Your task to perform on an android device: turn off improve location accuracy Image 0: 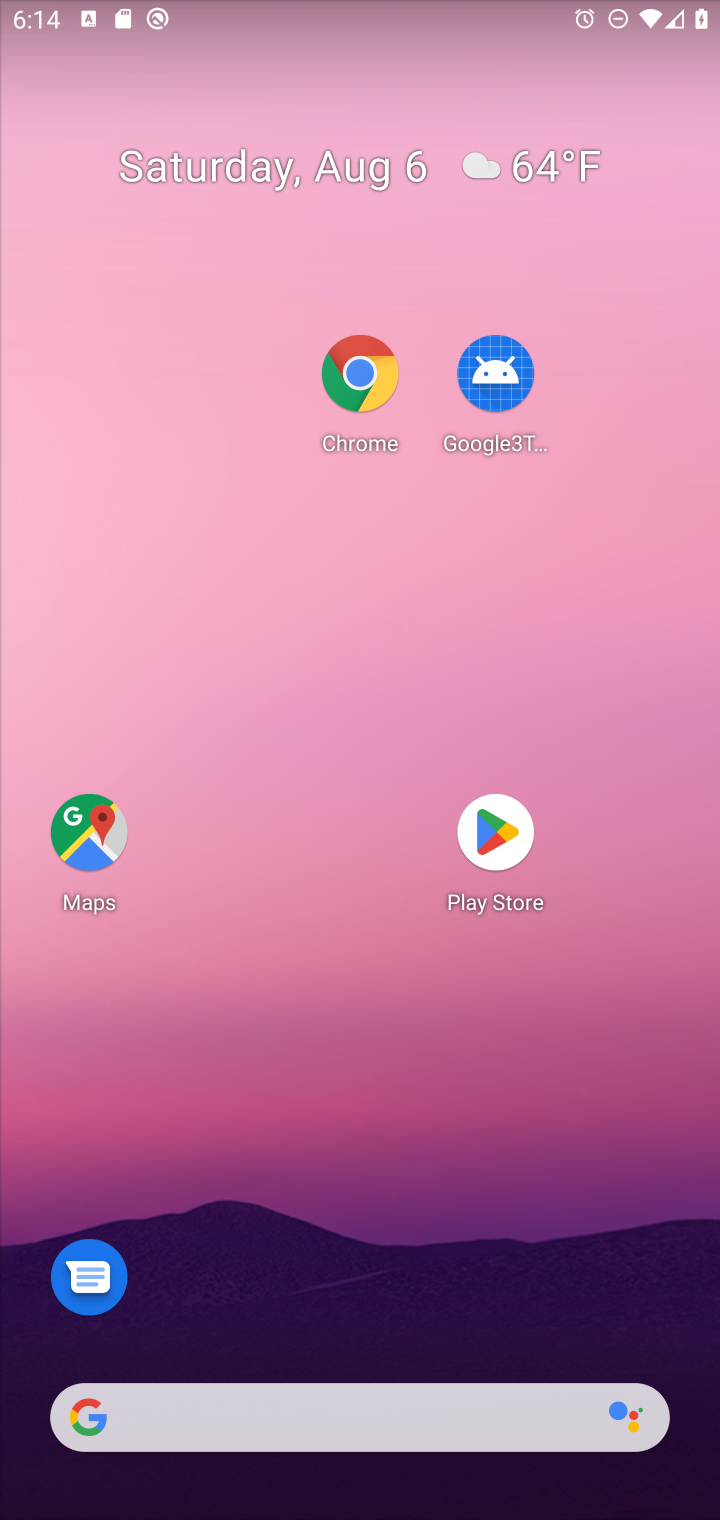
Step 0: drag from (262, 1404) to (410, 325)
Your task to perform on an android device: turn off improve location accuracy Image 1: 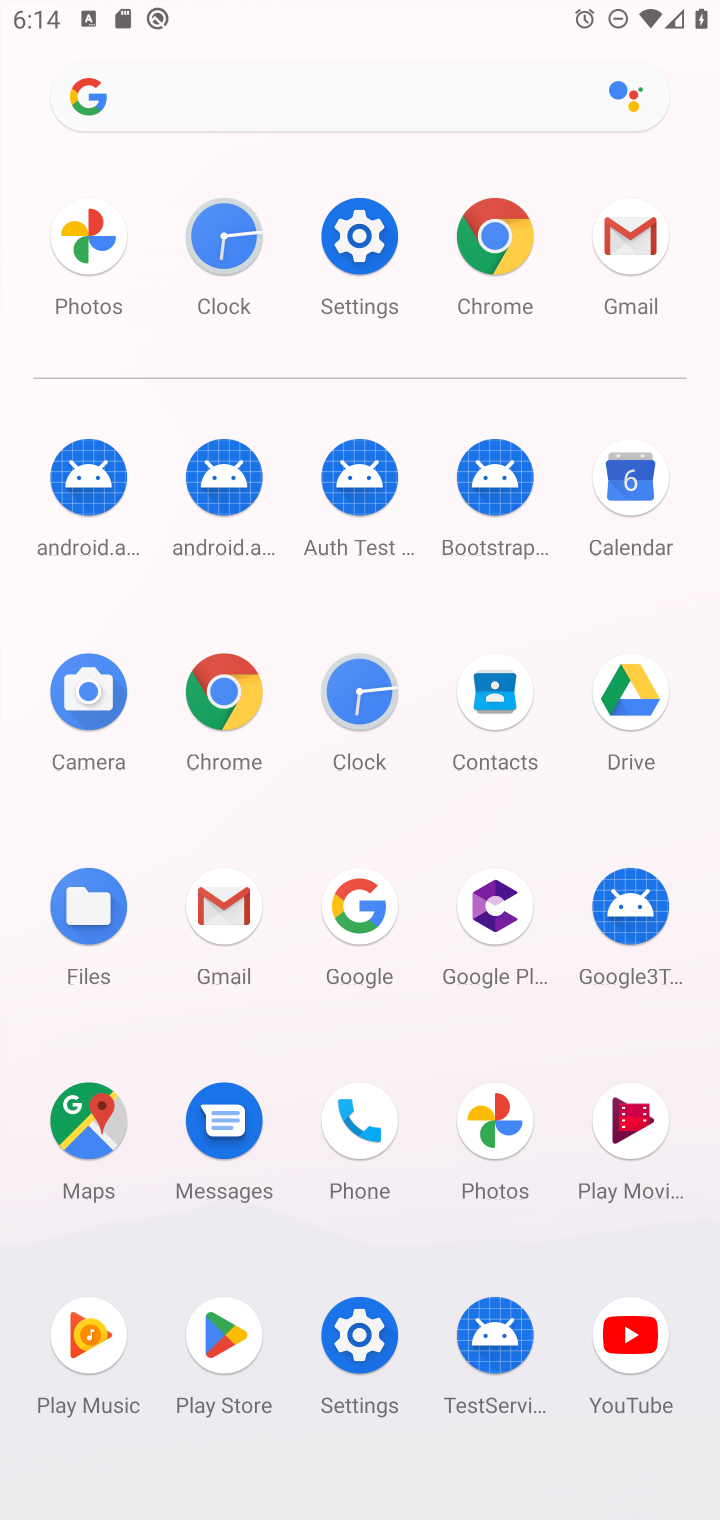
Step 1: click (370, 225)
Your task to perform on an android device: turn off improve location accuracy Image 2: 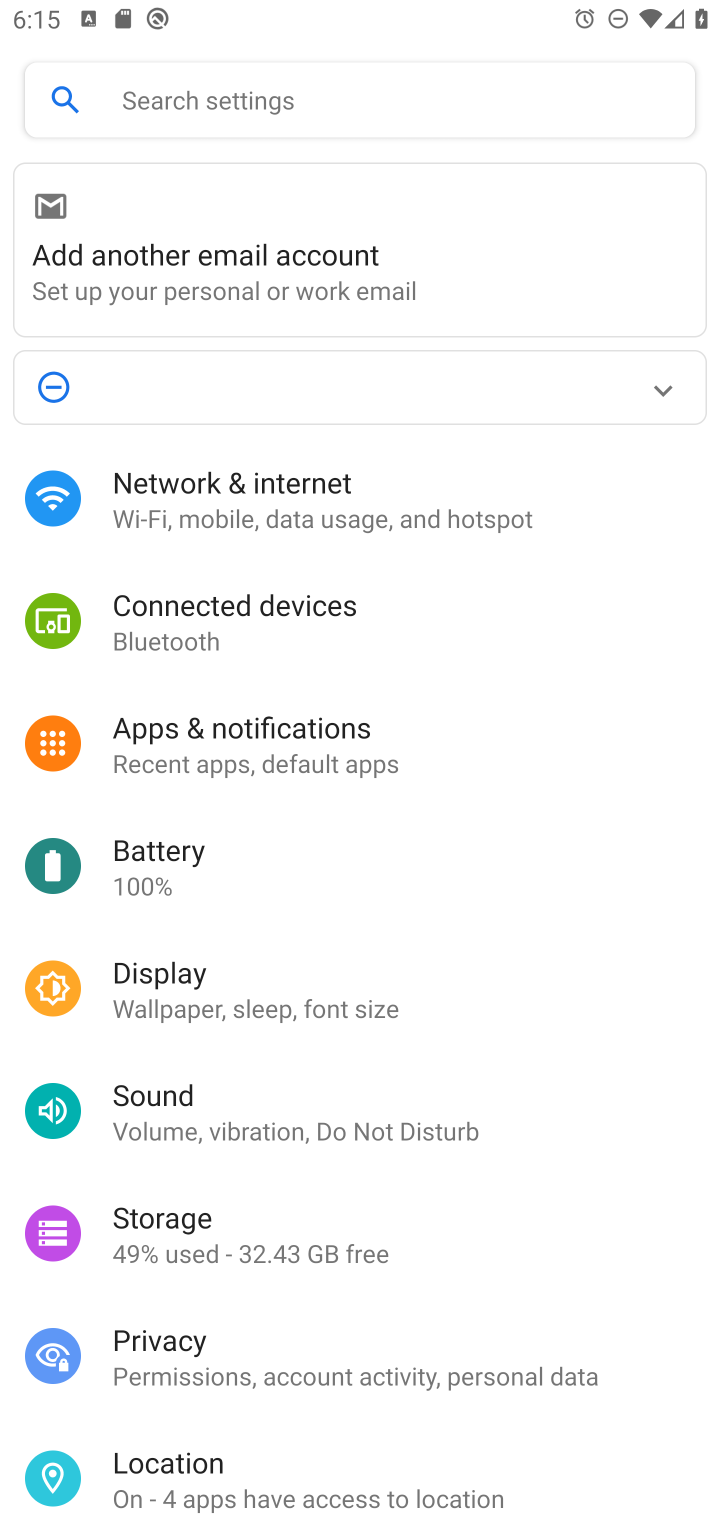
Step 2: click (169, 1465)
Your task to perform on an android device: turn off improve location accuracy Image 3: 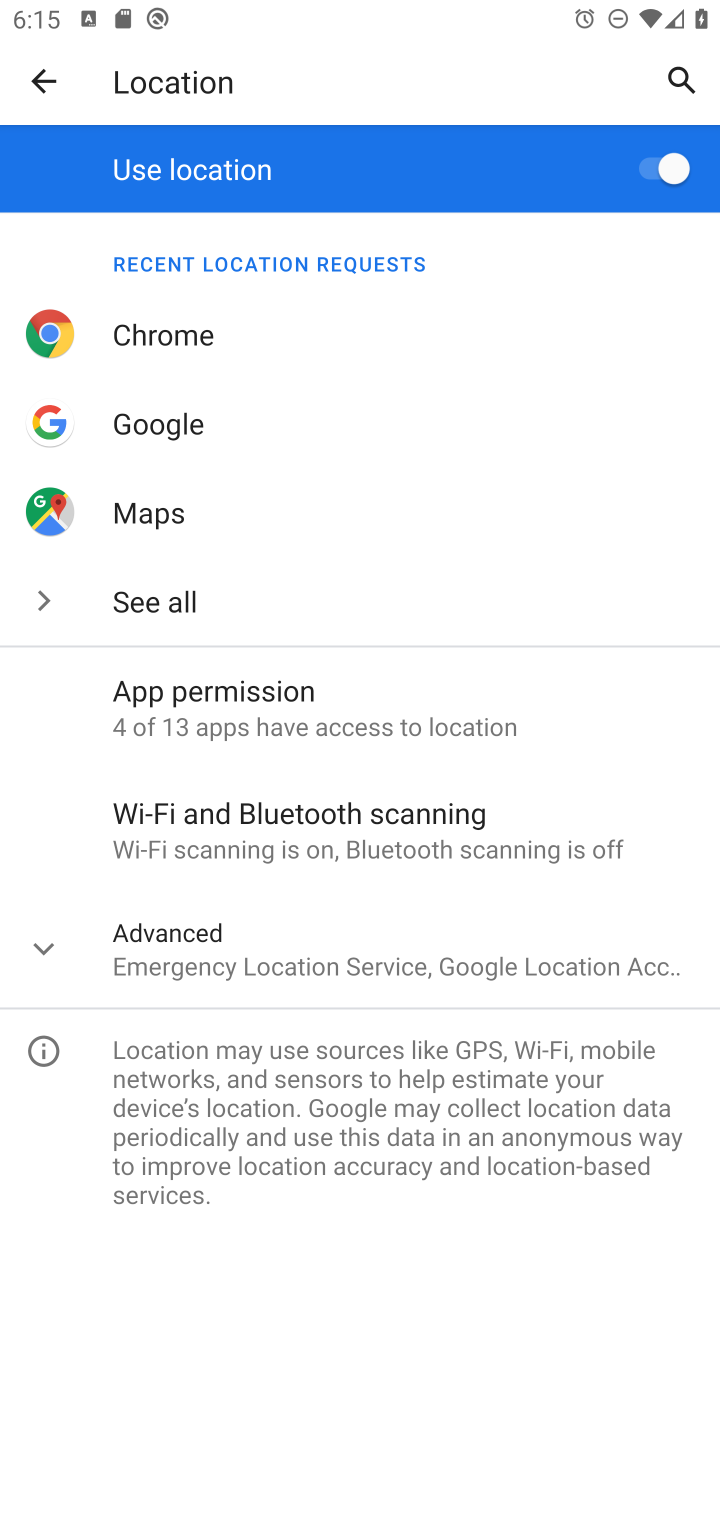
Step 3: click (247, 952)
Your task to perform on an android device: turn off improve location accuracy Image 4: 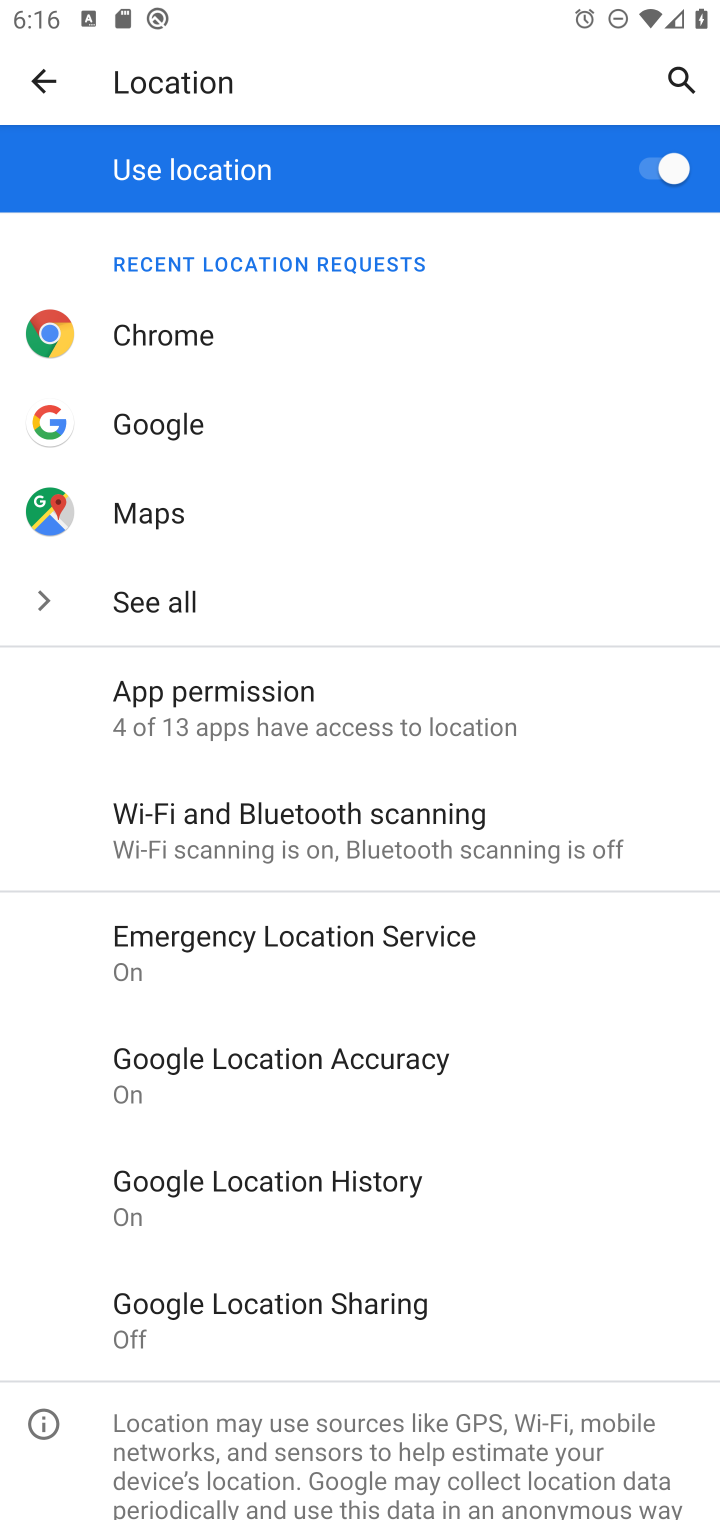
Step 4: click (338, 1070)
Your task to perform on an android device: turn off improve location accuracy Image 5: 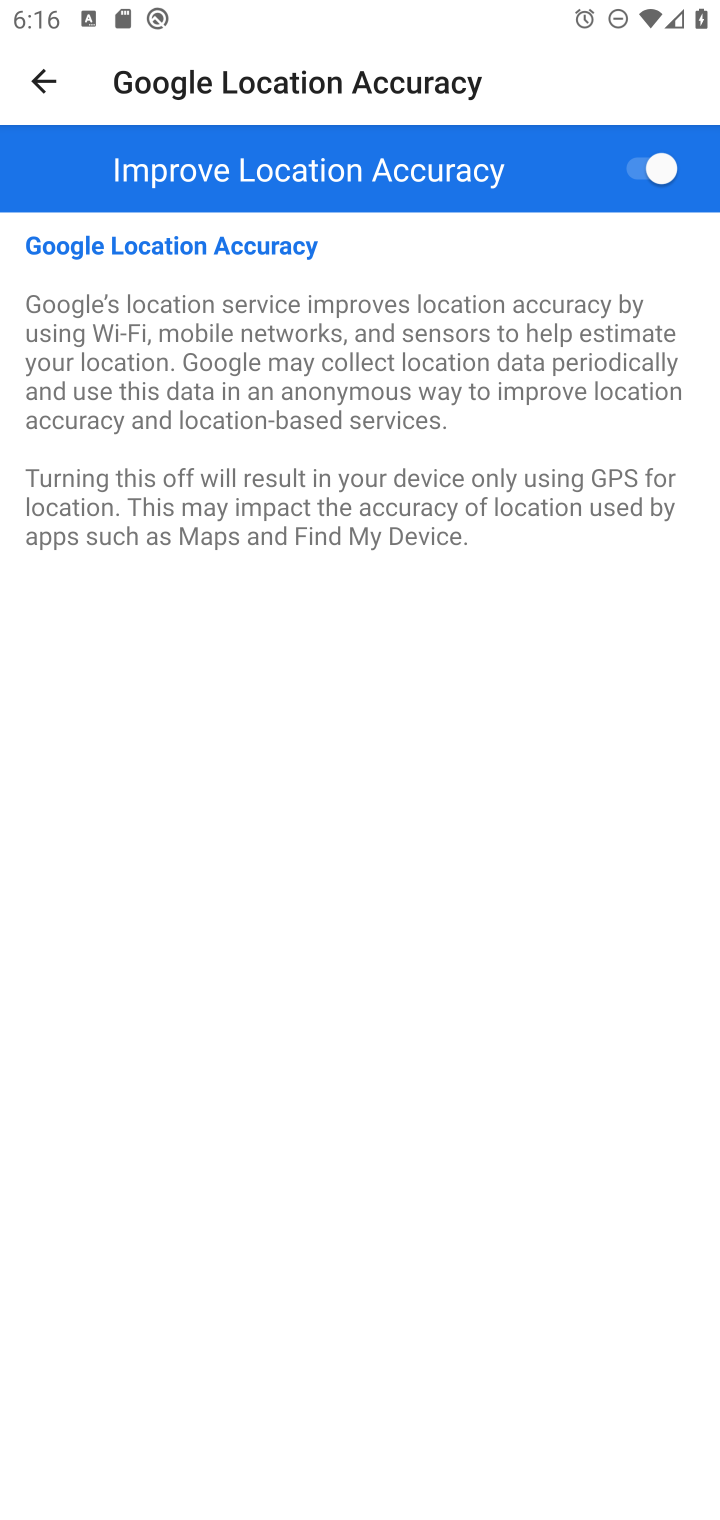
Step 5: click (650, 169)
Your task to perform on an android device: turn off improve location accuracy Image 6: 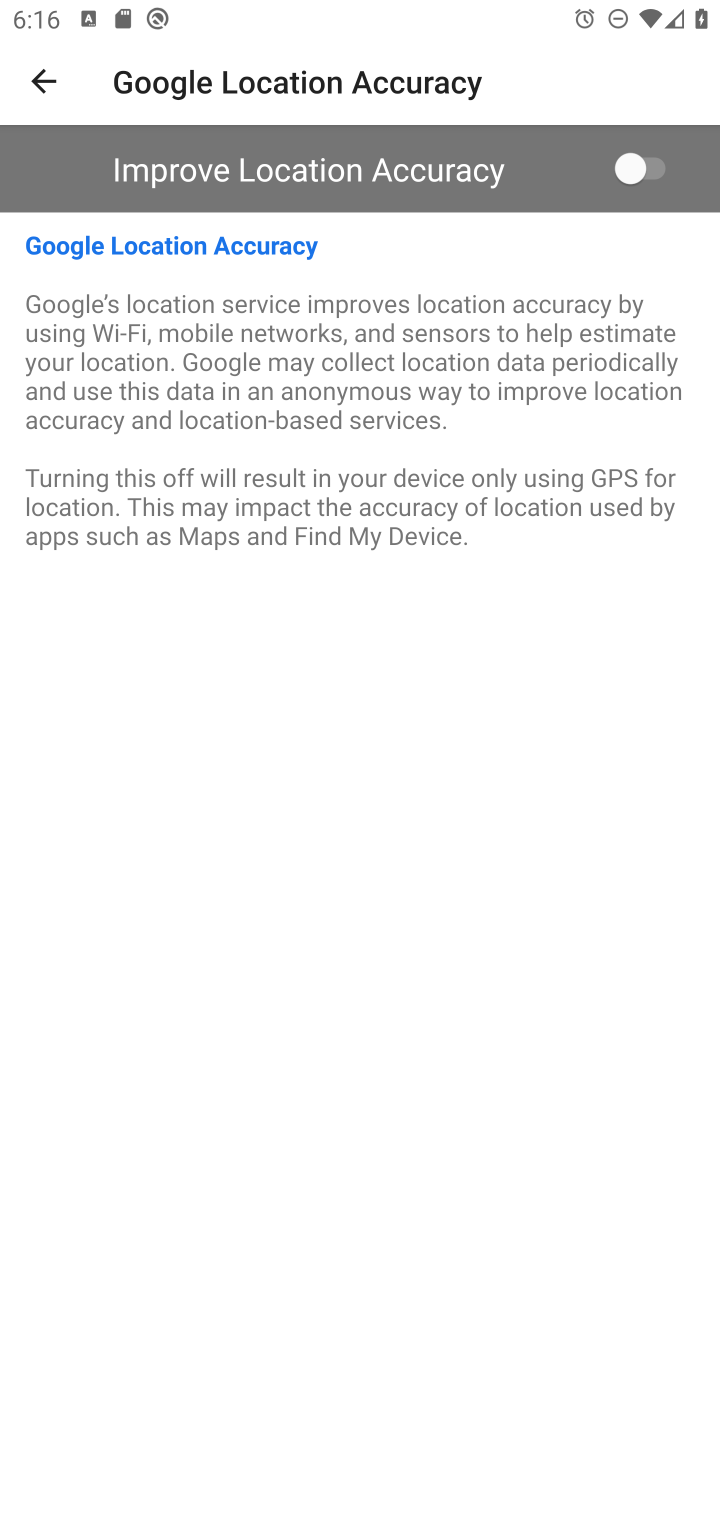
Step 6: task complete